Your task to perform on an android device: install app "Cash App" Image 0: 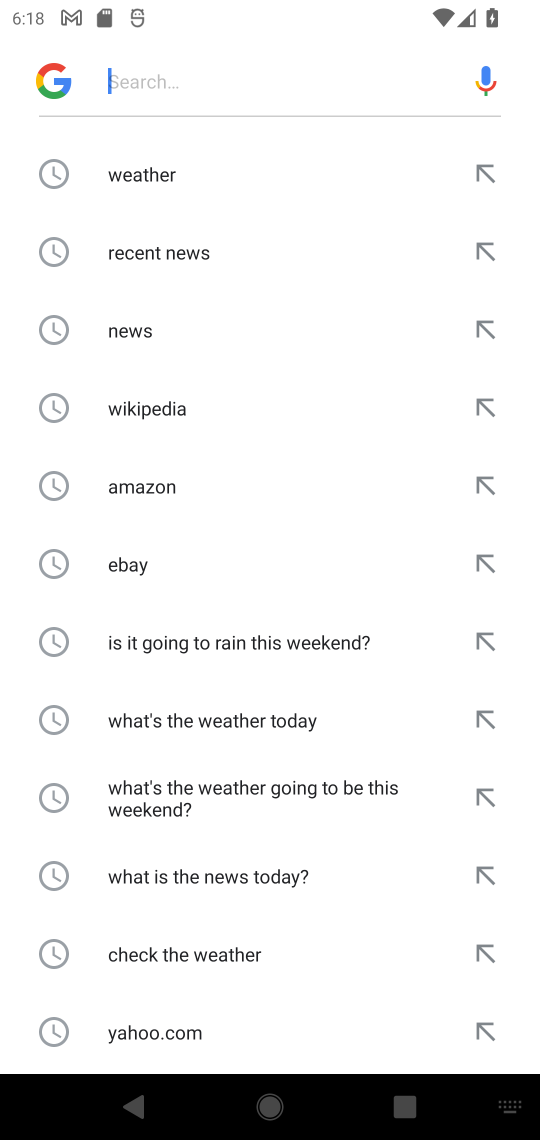
Step 0: press back button
Your task to perform on an android device: install app "Cash App" Image 1: 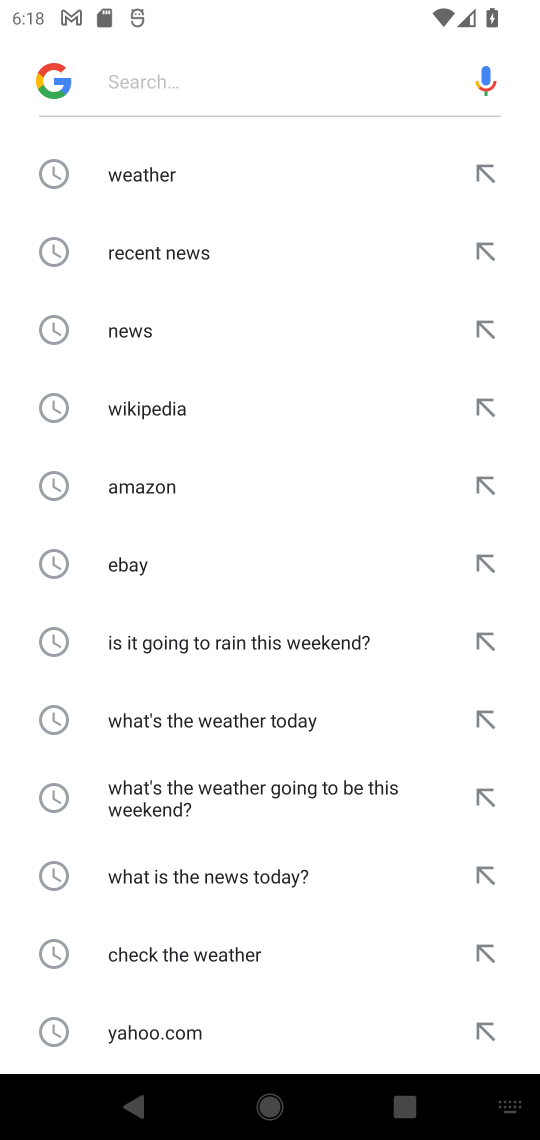
Step 1: press back button
Your task to perform on an android device: install app "Cash App" Image 2: 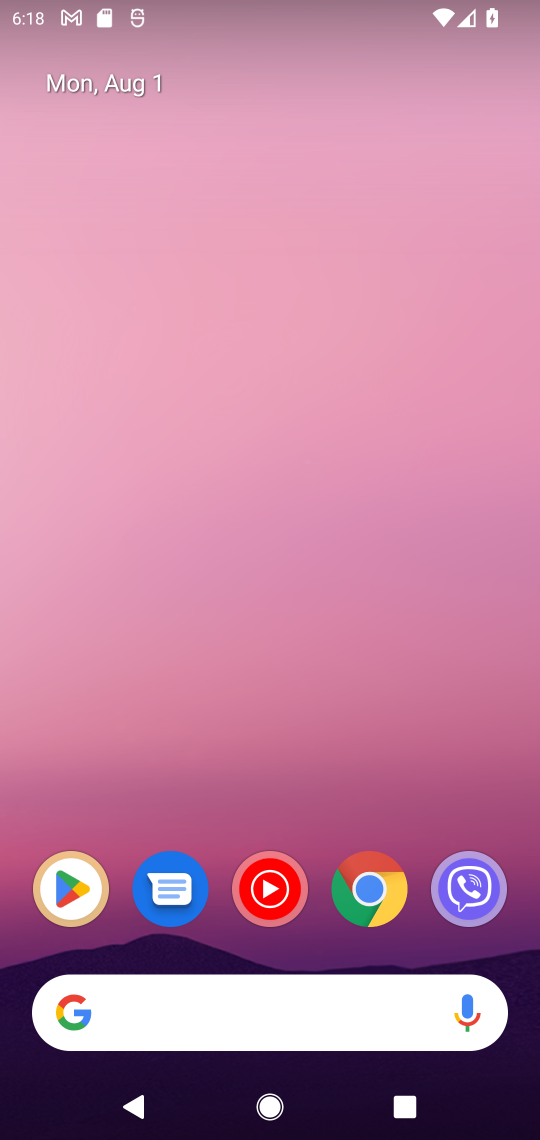
Step 2: drag from (351, 908) to (351, 677)
Your task to perform on an android device: install app "Cash App" Image 3: 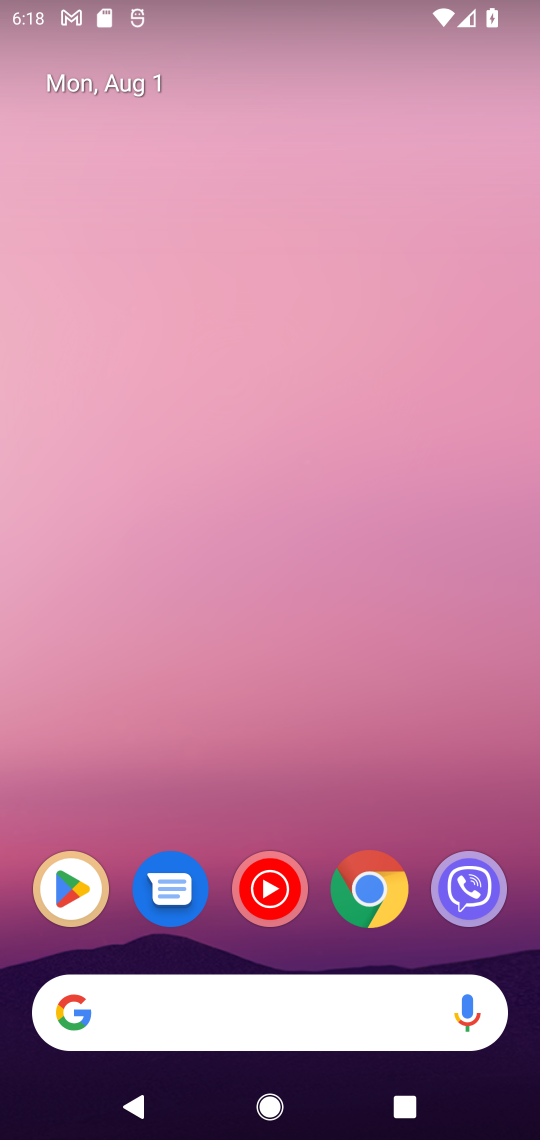
Step 3: drag from (447, 866) to (334, 332)
Your task to perform on an android device: install app "Cash App" Image 4: 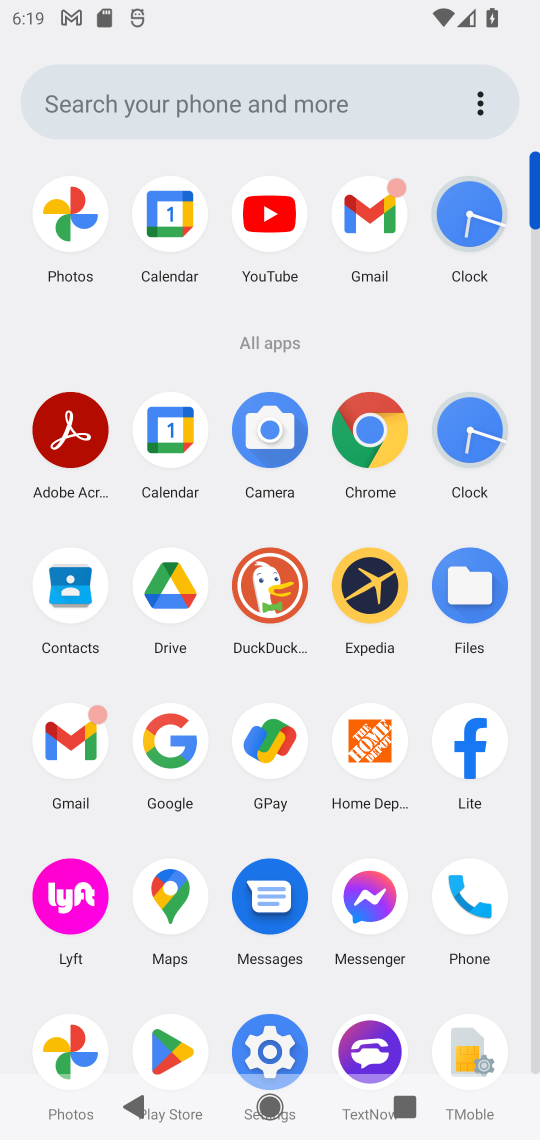
Step 4: drag from (258, 905) to (265, 511)
Your task to perform on an android device: install app "Cash App" Image 5: 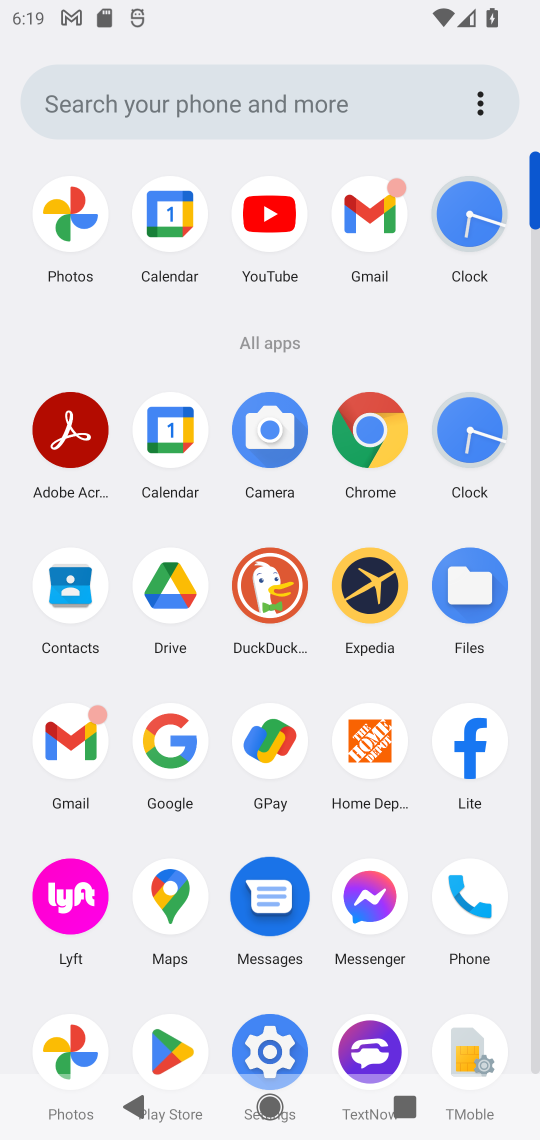
Step 5: drag from (250, 817) to (240, 470)
Your task to perform on an android device: install app "Cash App" Image 6: 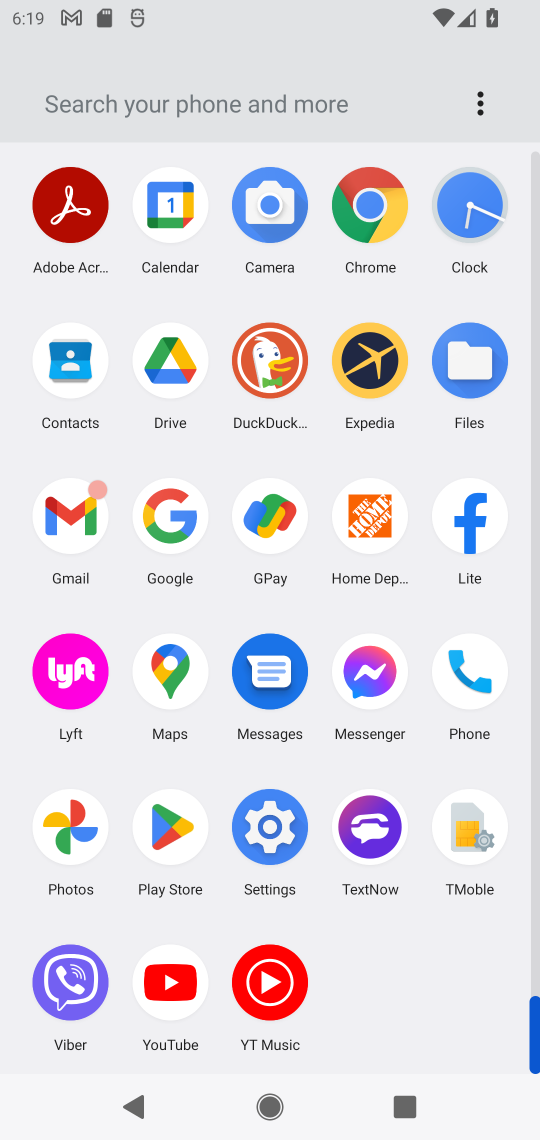
Step 6: click (160, 825)
Your task to perform on an android device: install app "Cash App" Image 7: 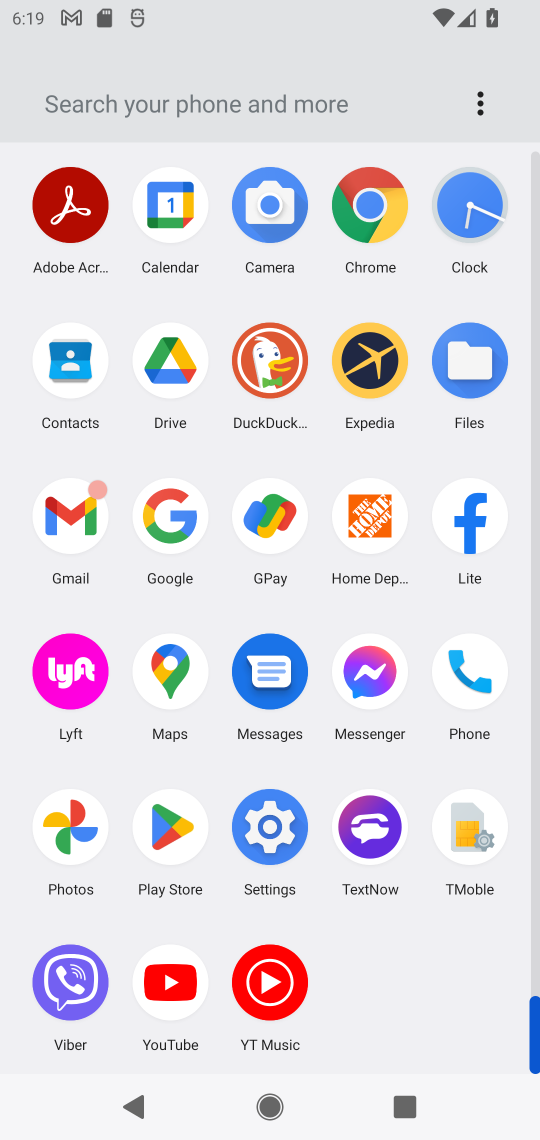
Step 7: click (160, 825)
Your task to perform on an android device: install app "Cash App" Image 8: 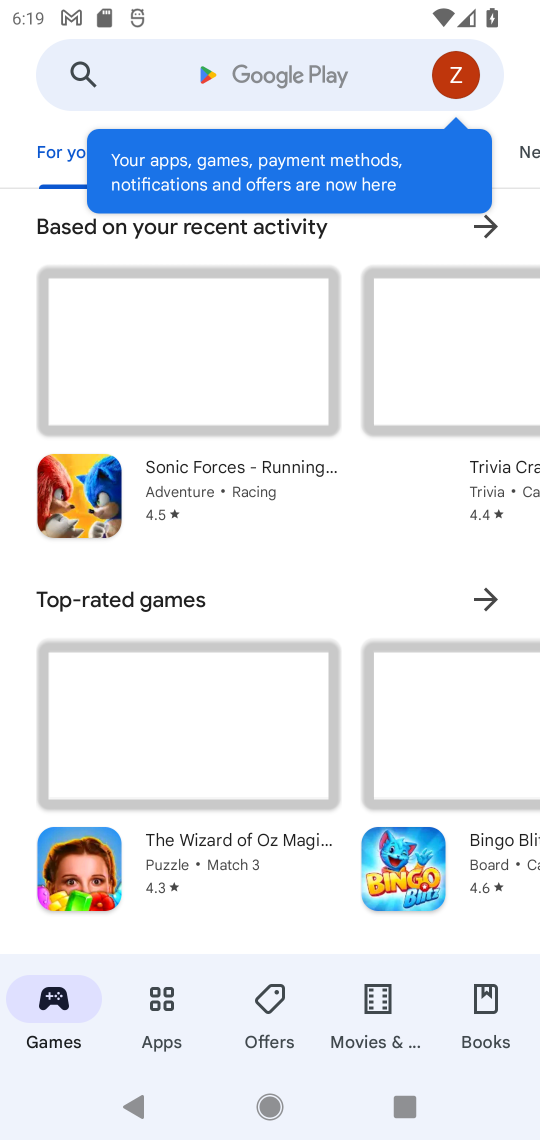
Step 8: click (173, 57)
Your task to perform on an android device: install app "Cash App" Image 9: 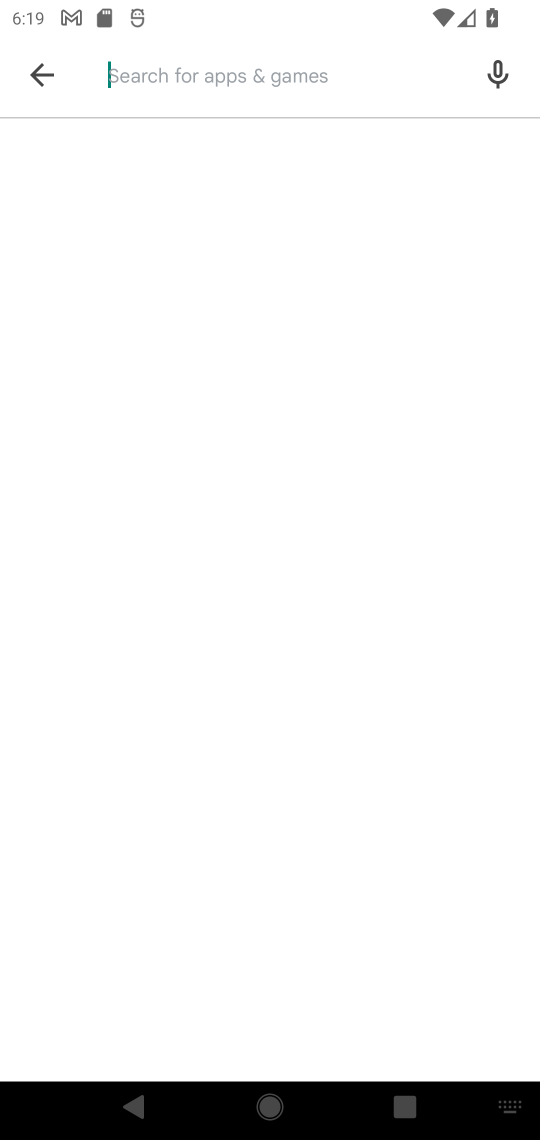
Step 9: click (203, 73)
Your task to perform on an android device: install app "Cash App" Image 10: 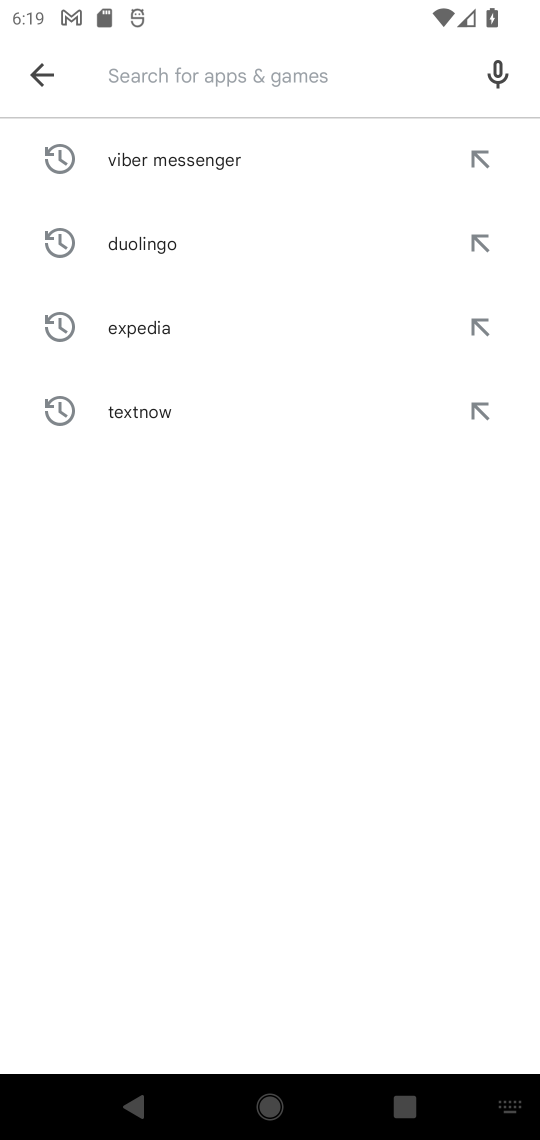
Step 10: type "cash"
Your task to perform on an android device: install app "Cash App" Image 11: 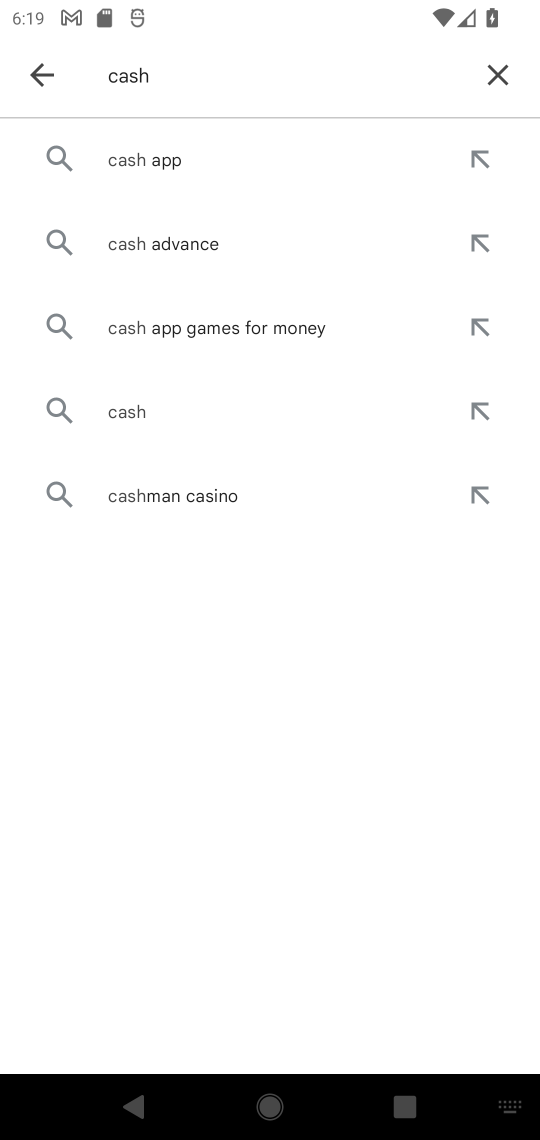
Step 11: click (125, 156)
Your task to perform on an android device: install app "Cash App" Image 12: 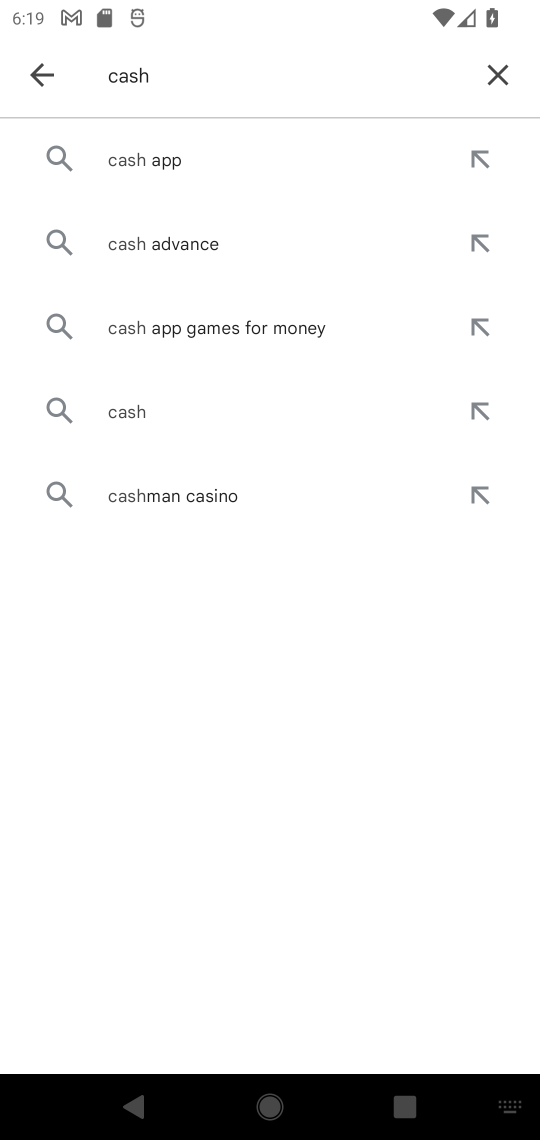
Step 12: click (126, 156)
Your task to perform on an android device: install app "Cash App" Image 13: 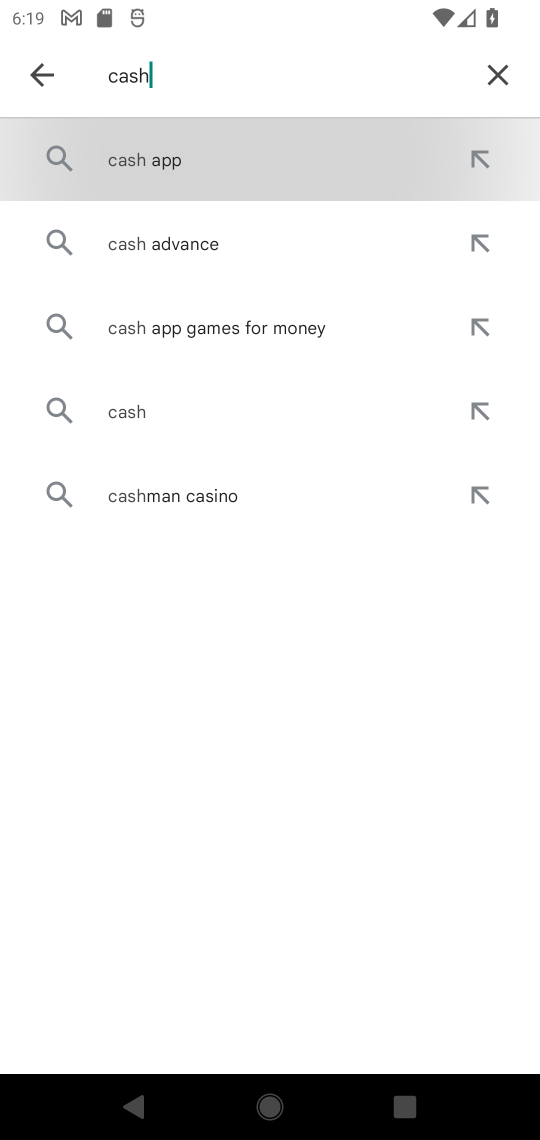
Step 13: click (126, 156)
Your task to perform on an android device: install app "Cash App" Image 14: 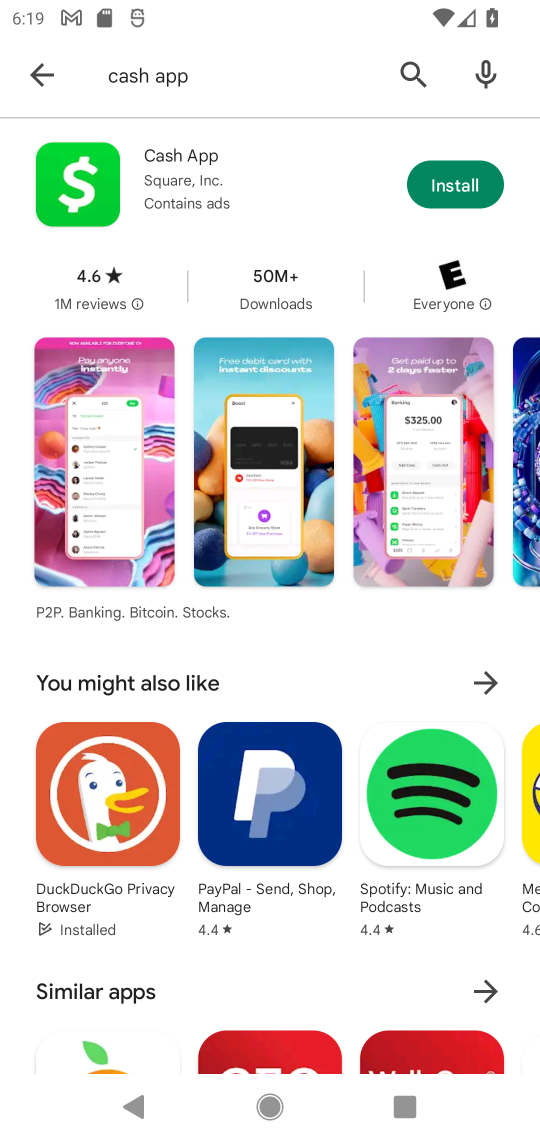
Step 14: click (463, 172)
Your task to perform on an android device: install app "Cash App" Image 15: 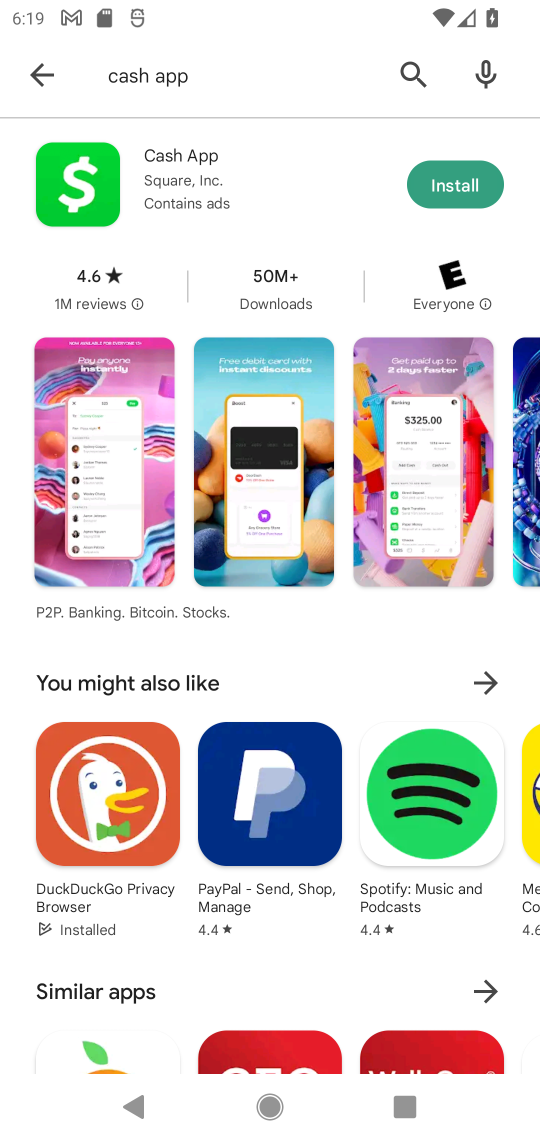
Step 15: click (462, 171)
Your task to perform on an android device: install app "Cash App" Image 16: 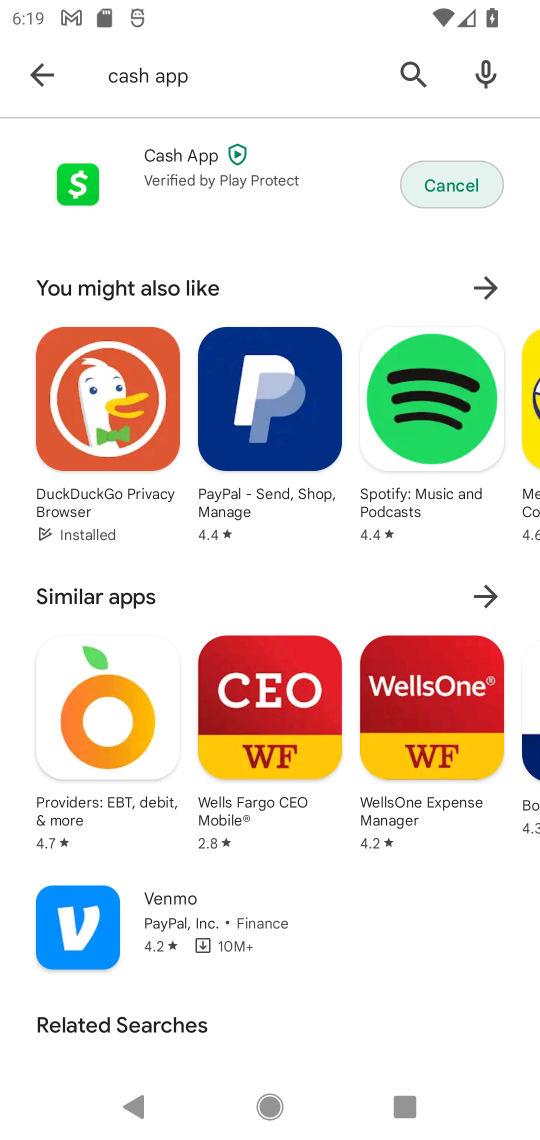
Step 16: click (463, 169)
Your task to perform on an android device: install app "Cash App" Image 17: 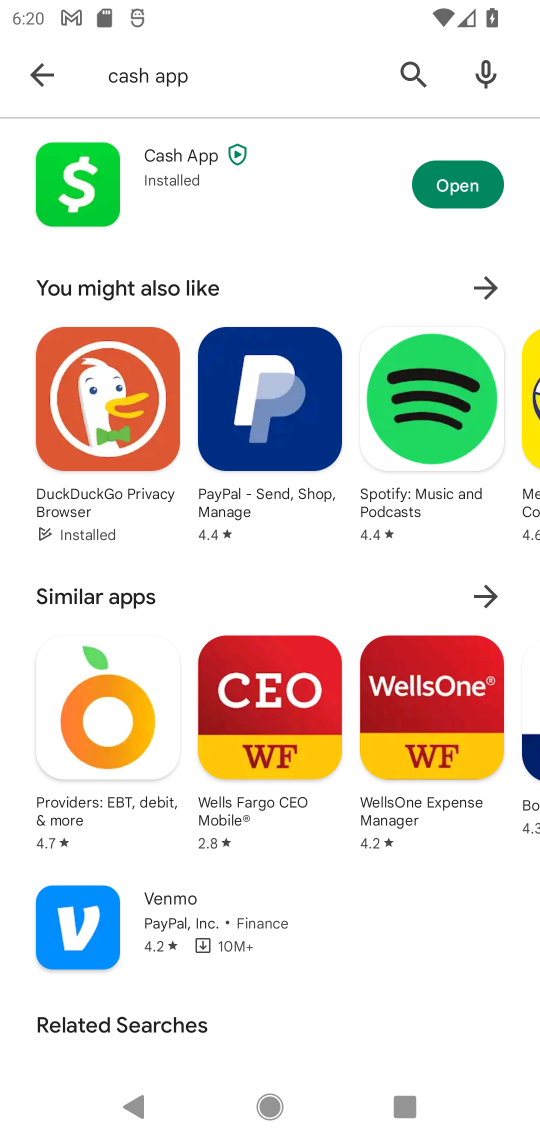
Step 17: click (472, 177)
Your task to perform on an android device: install app "Cash App" Image 18: 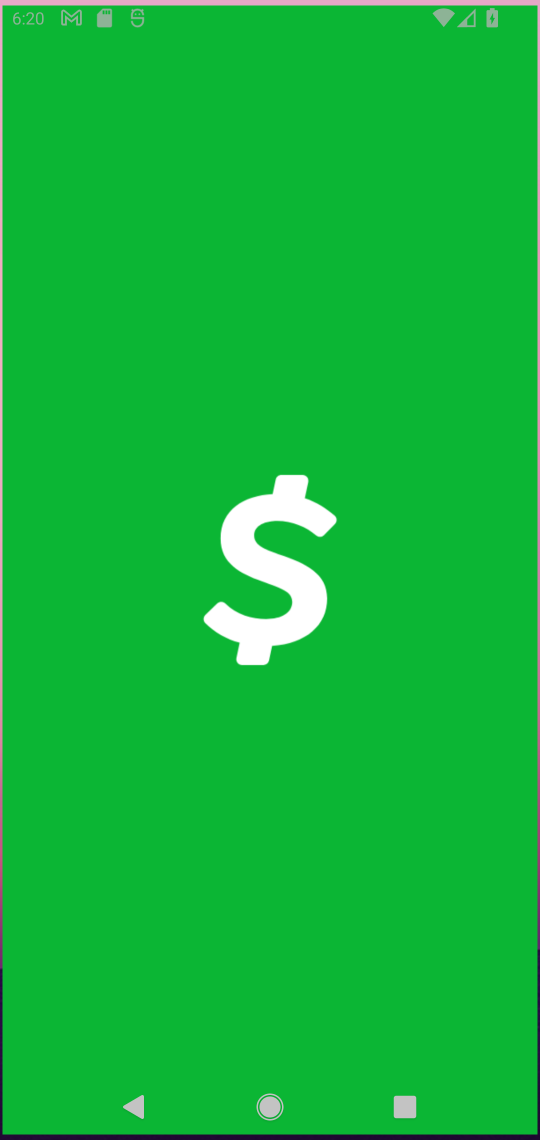
Step 18: task complete